Your task to perform on an android device: Open ESPN.com Image 0: 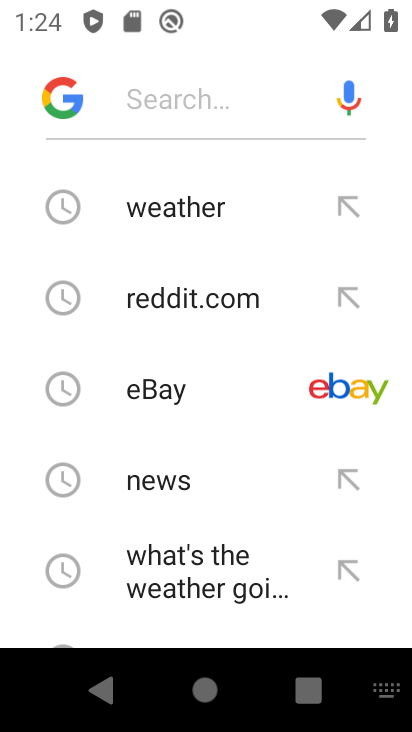
Step 0: press home button
Your task to perform on an android device: Open ESPN.com Image 1: 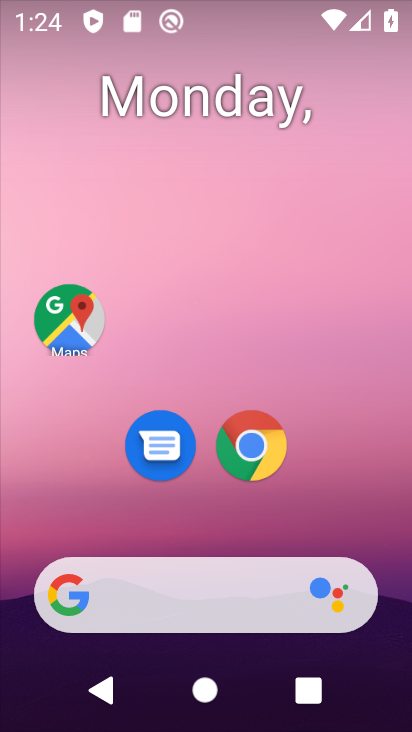
Step 1: click (255, 443)
Your task to perform on an android device: Open ESPN.com Image 2: 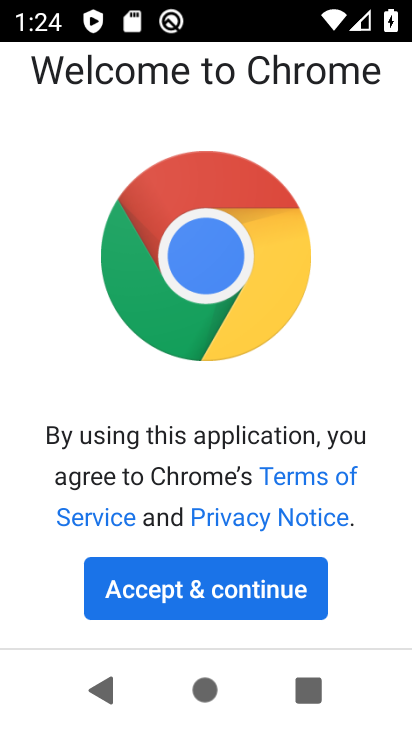
Step 2: click (280, 577)
Your task to perform on an android device: Open ESPN.com Image 3: 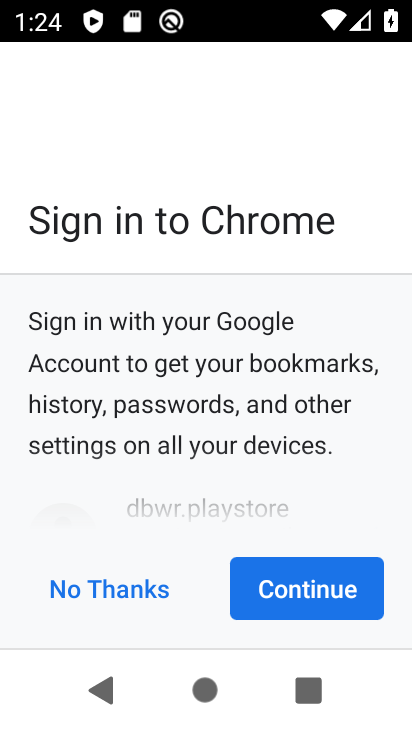
Step 3: click (344, 613)
Your task to perform on an android device: Open ESPN.com Image 4: 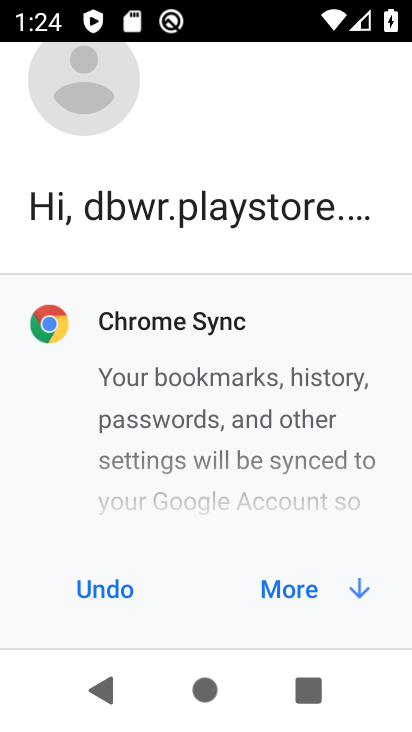
Step 4: click (347, 598)
Your task to perform on an android device: Open ESPN.com Image 5: 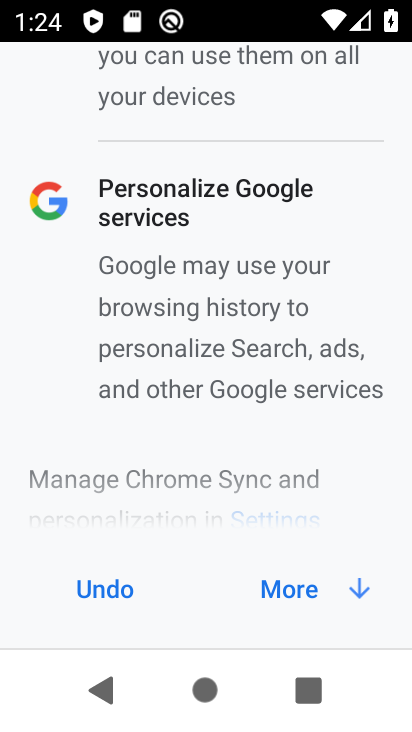
Step 5: click (347, 593)
Your task to perform on an android device: Open ESPN.com Image 6: 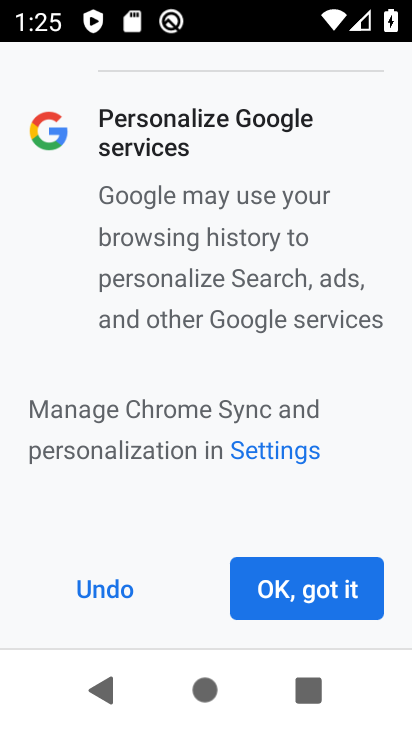
Step 6: click (347, 593)
Your task to perform on an android device: Open ESPN.com Image 7: 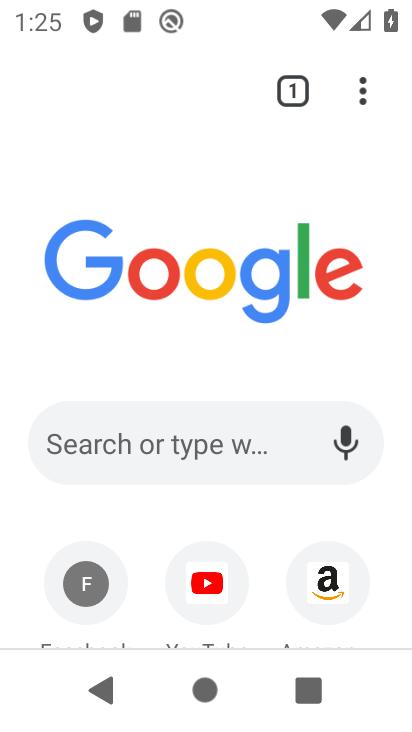
Step 7: click (228, 431)
Your task to perform on an android device: Open ESPN.com Image 8: 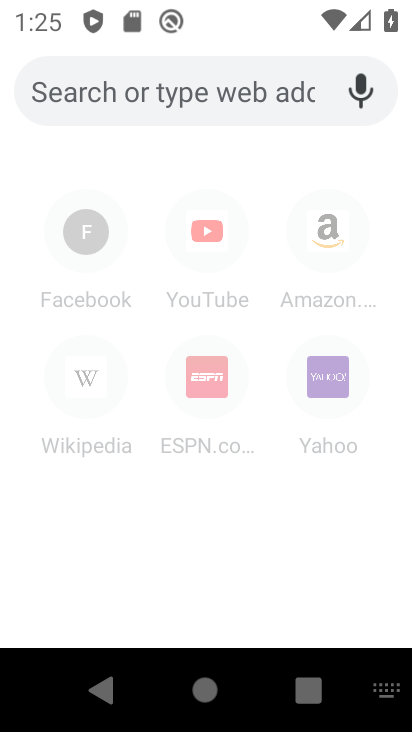
Step 8: type "ESPN.com"
Your task to perform on an android device: Open ESPN.com Image 9: 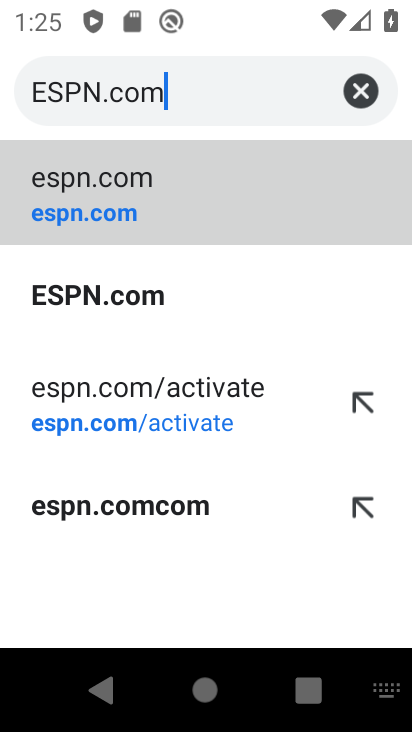
Step 9: click (144, 184)
Your task to perform on an android device: Open ESPN.com Image 10: 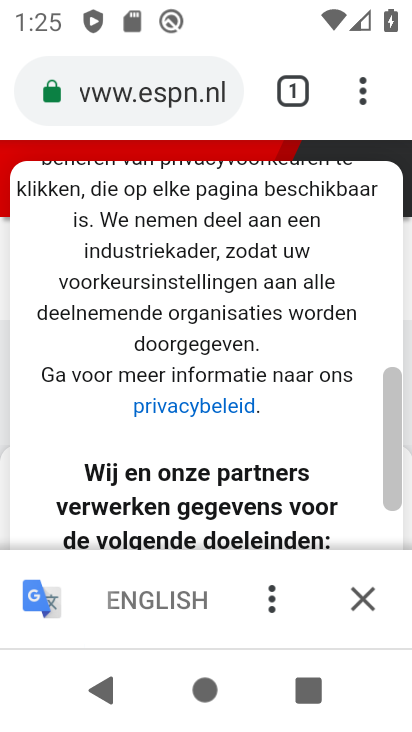
Step 10: task complete